Your task to perform on an android device: all mails in gmail Image 0: 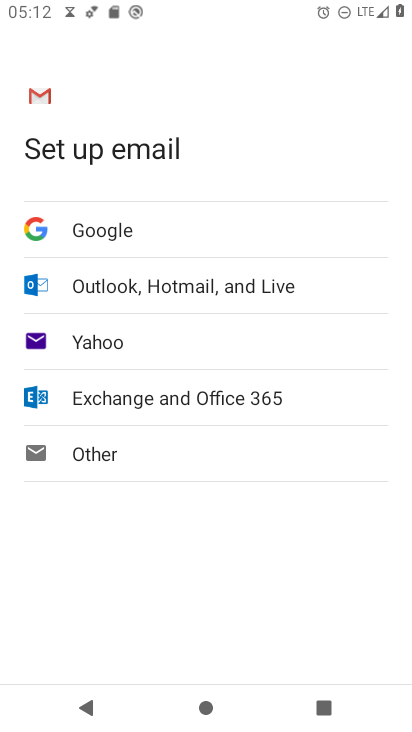
Step 0: press back button
Your task to perform on an android device: all mails in gmail Image 1: 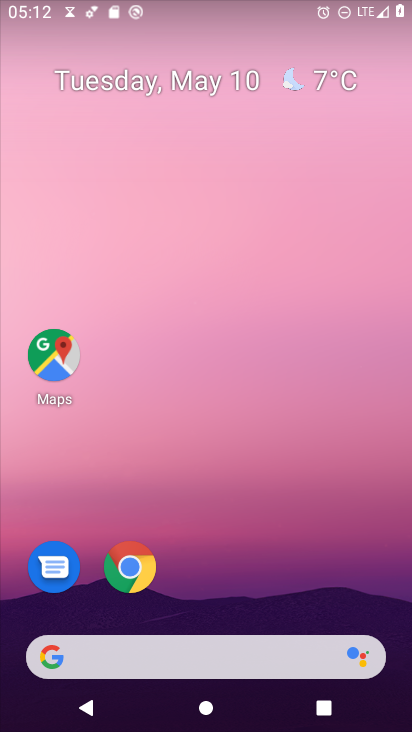
Step 1: drag from (218, 609) to (216, 187)
Your task to perform on an android device: all mails in gmail Image 2: 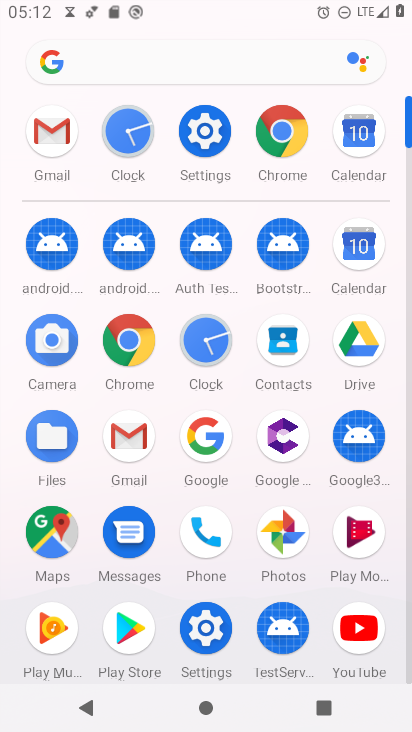
Step 2: click (49, 129)
Your task to perform on an android device: all mails in gmail Image 3: 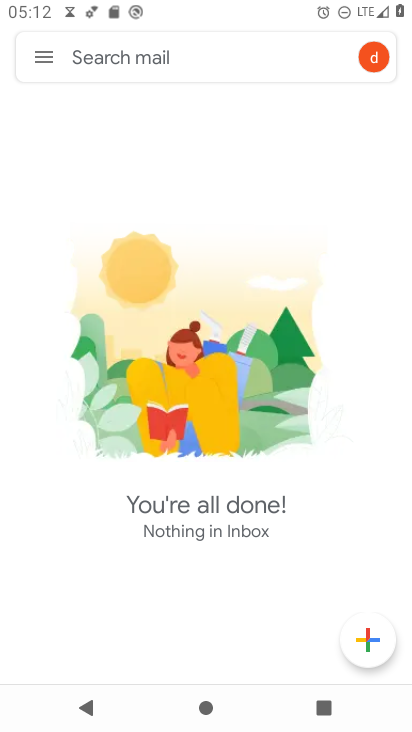
Step 3: click (46, 58)
Your task to perform on an android device: all mails in gmail Image 4: 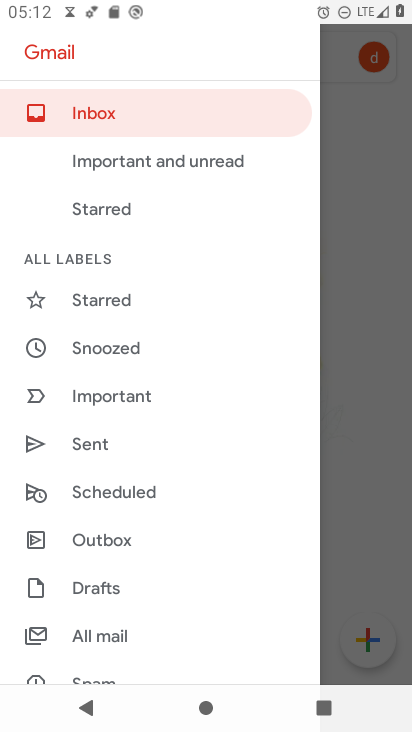
Step 4: drag from (127, 568) to (159, 468)
Your task to perform on an android device: all mails in gmail Image 5: 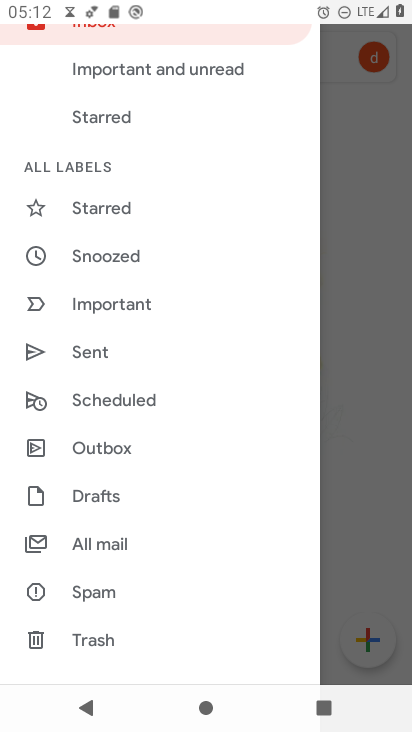
Step 5: click (86, 549)
Your task to perform on an android device: all mails in gmail Image 6: 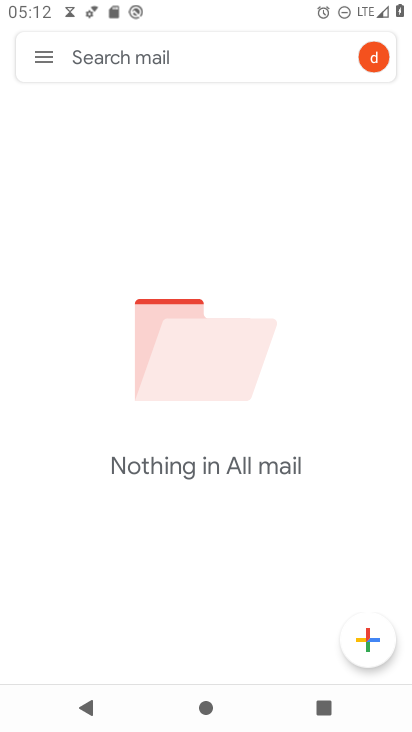
Step 6: task complete